Your task to perform on an android device: Search for "alienware area 51" on newegg.com, select the first entry, add it to the cart, then select checkout. Image 0: 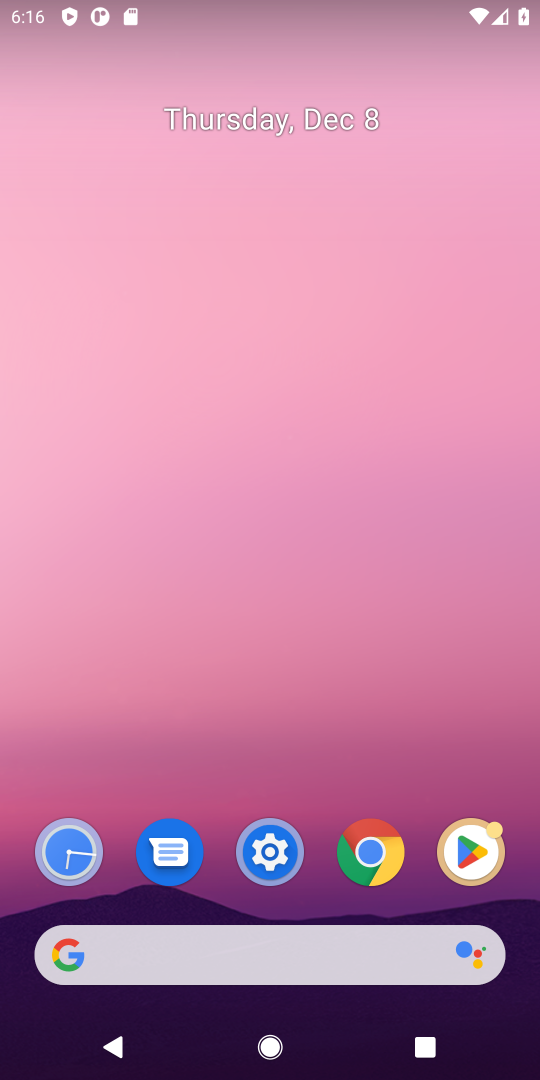
Step 0: click (278, 961)
Your task to perform on an android device: Search for "alienware area 51" on newegg.com, select the first entry, add it to the cart, then select checkout. Image 1: 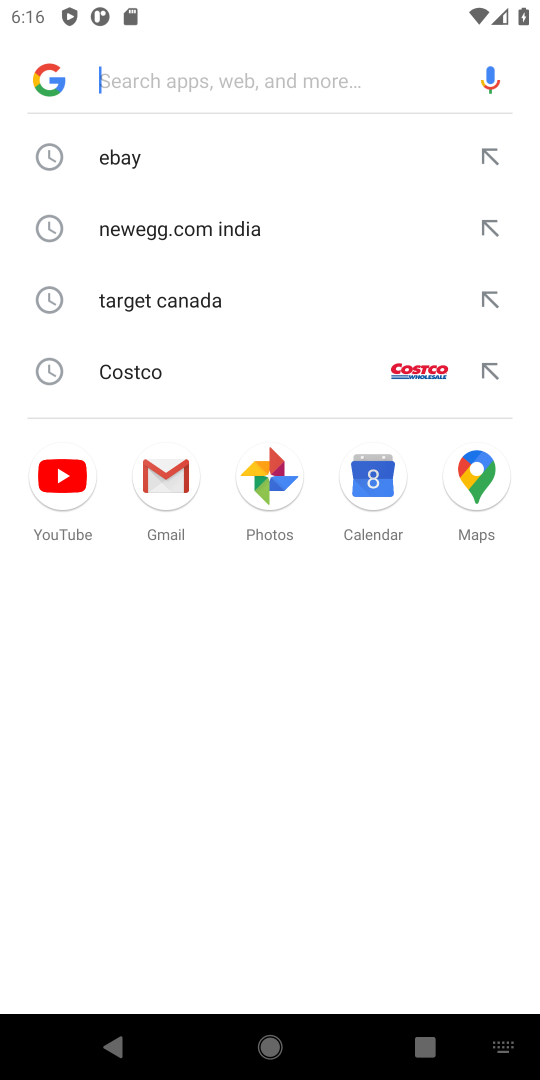
Step 1: type "newegg.com"
Your task to perform on an android device: Search for "alienware area 51" on newegg.com, select the first entry, add it to the cart, then select checkout. Image 2: 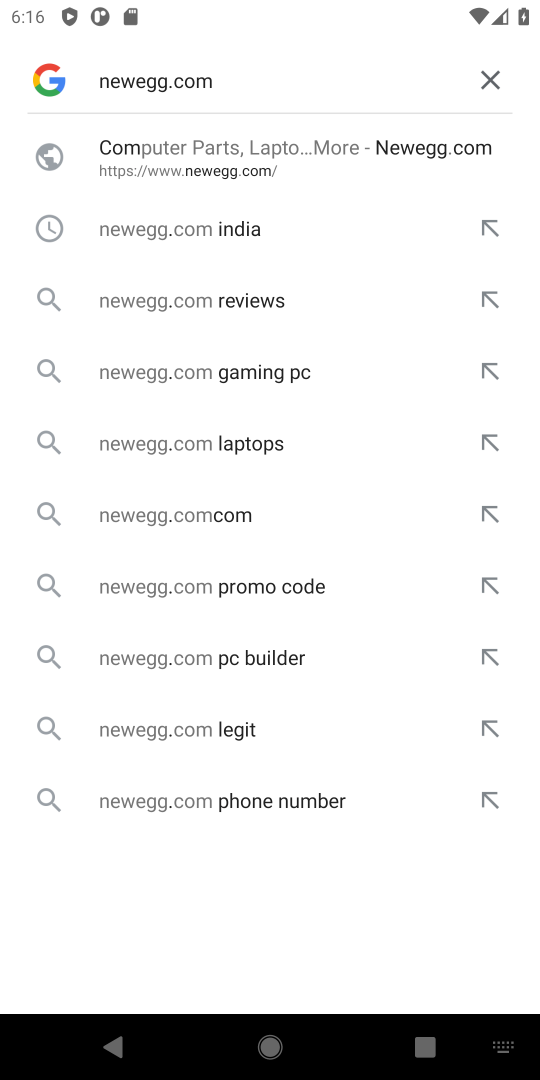
Step 2: click (180, 172)
Your task to perform on an android device: Search for "alienware area 51" on newegg.com, select the first entry, add it to the cart, then select checkout. Image 3: 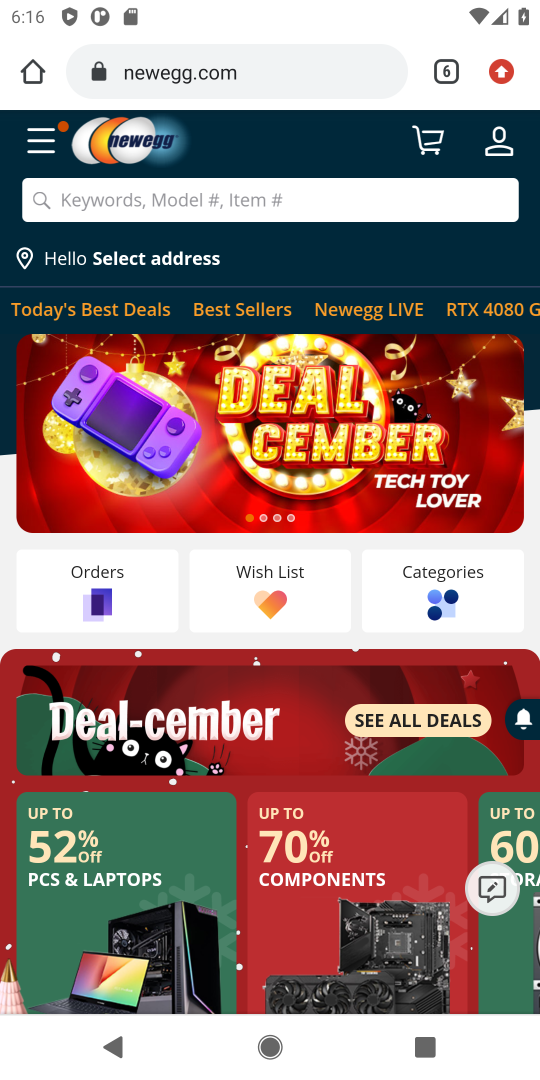
Step 3: click (175, 201)
Your task to perform on an android device: Search for "alienware area 51" on newegg.com, select the first entry, add it to the cart, then select checkout. Image 4: 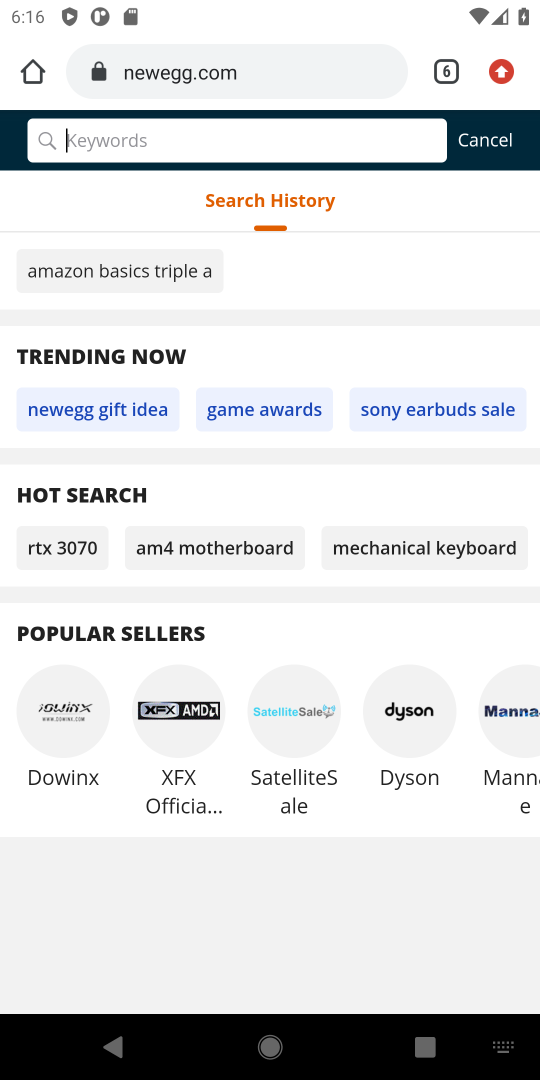
Step 4: type "alienware area 51"
Your task to perform on an android device: Search for "alienware area 51" on newegg.com, select the first entry, add it to the cart, then select checkout. Image 5: 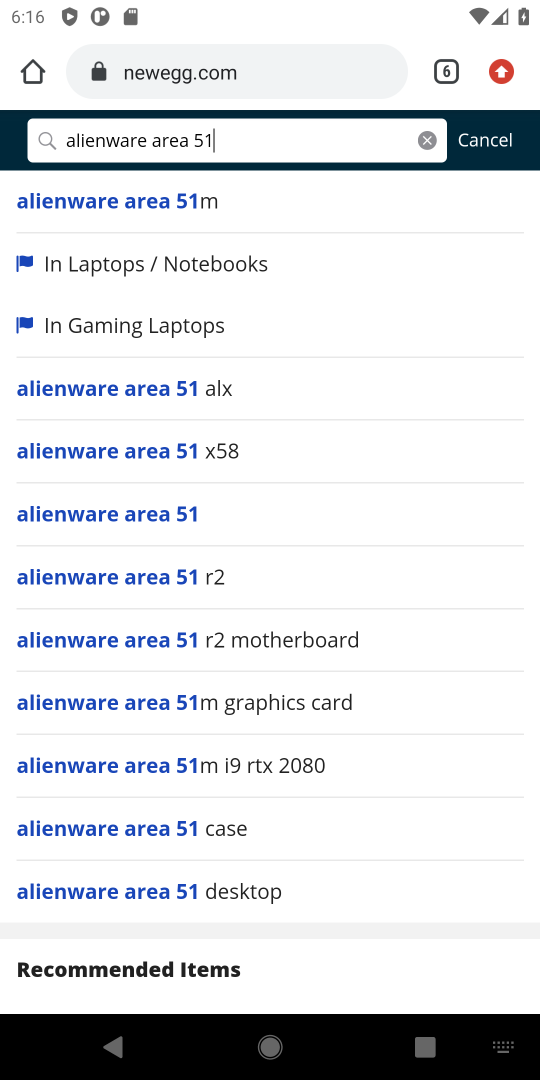
Step 5: click (221, 216)
Your task to perform on an android device: Search for "alienware area 51" on newegg.com, select the first entry, add it to the cart, then select checkout. Image 6: 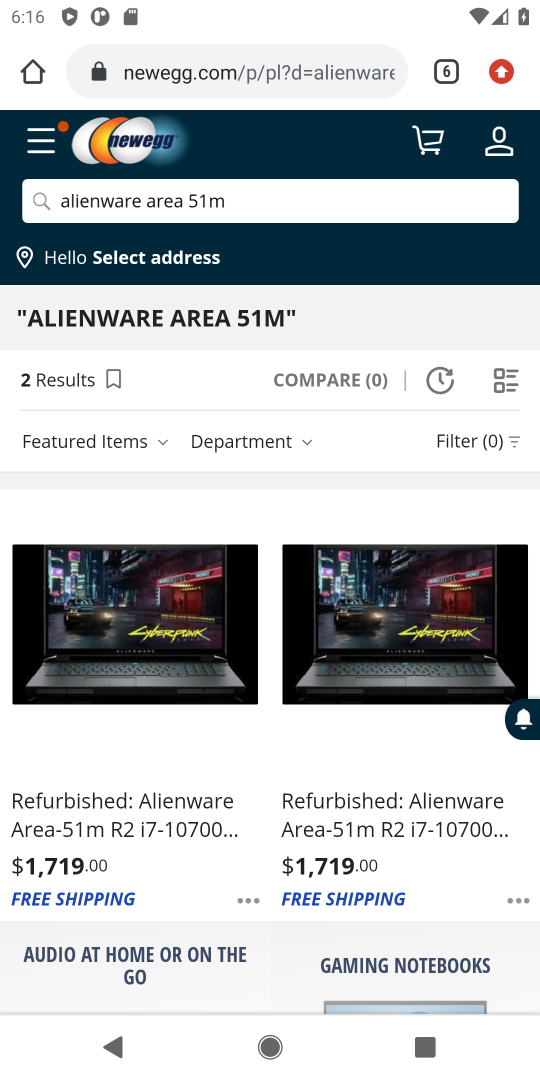
Step 6: click (180, 808)
Your task to perform on an android device: Search for "alienware area 51" on newegg.com, select the first entry, add it to the cart, then select checkout. Image 7: 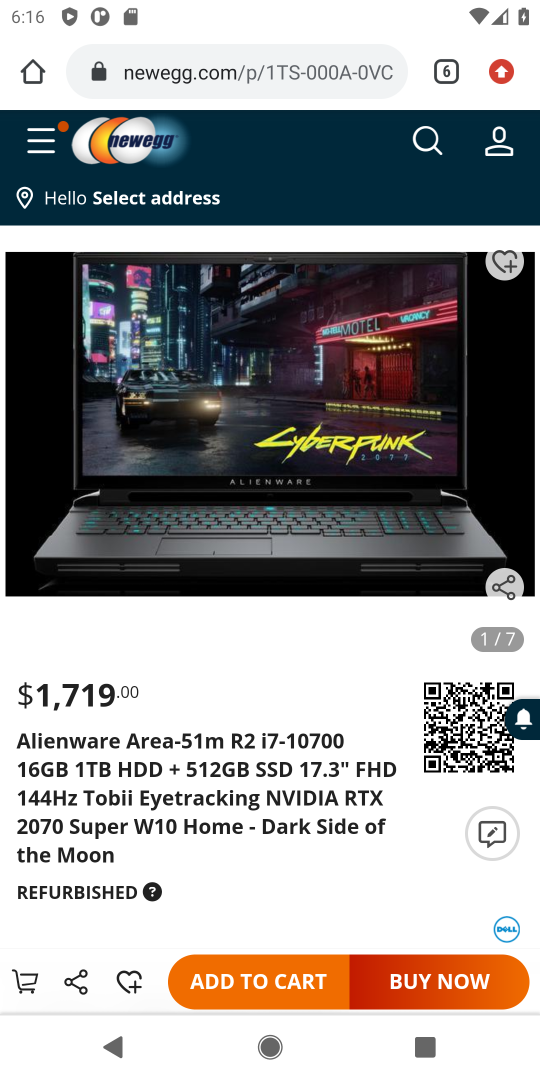
Step 7: click (260, 989)
Your task to perform on an android device: Search for "alienware area 51" on newegg.com, select the first entry, add it to the cart, then select checkout. Image 8: 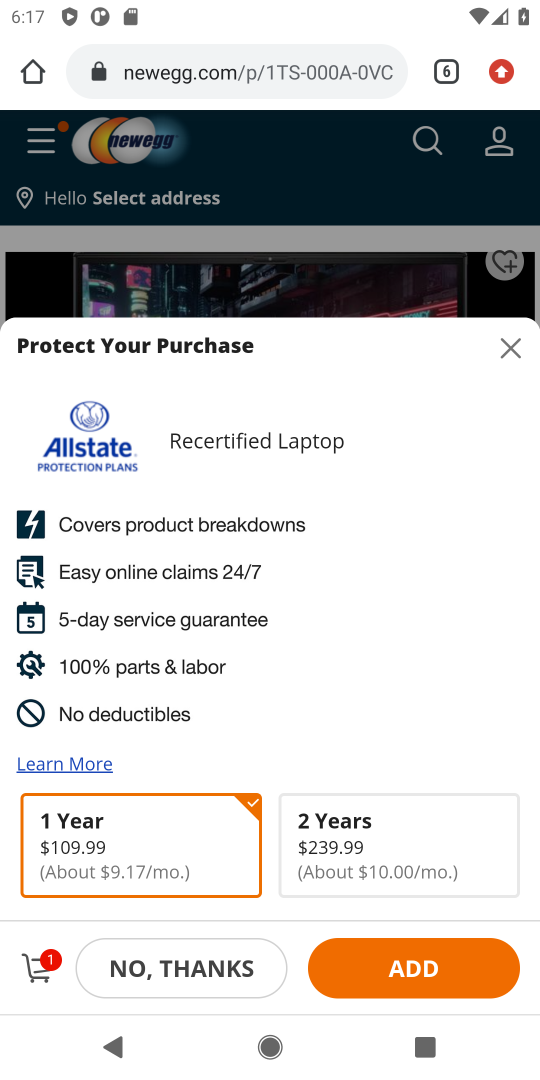
Step 8: click (369, 976)
Your task to perform on an android device: Search for "alienware area 51" on newegg.com, select the first entry, add it to the cart, then select checkout. Image 9: 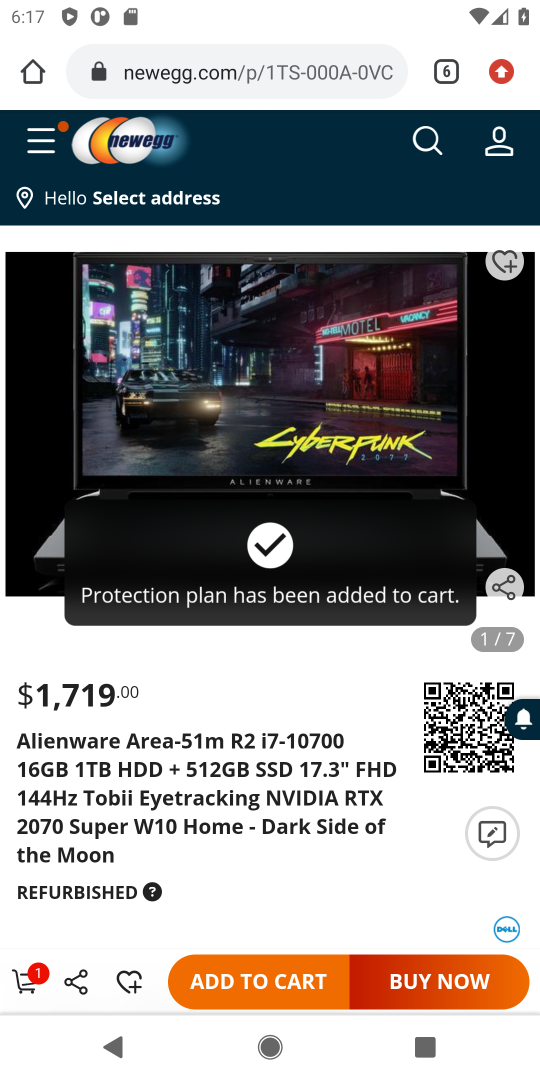
Step 9: task complete